Your task to perform on an android device: turn on javascript in the chrome app Image 0: 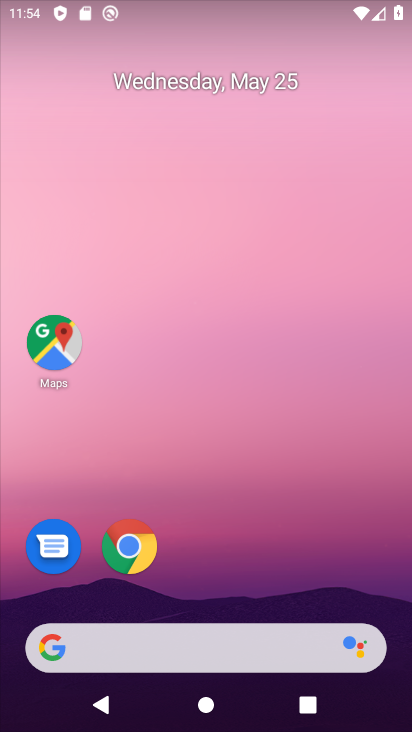
Step 0: click (131, 552)
Your task to perform on an android device: turn on javascript in the chrome app Image 1: 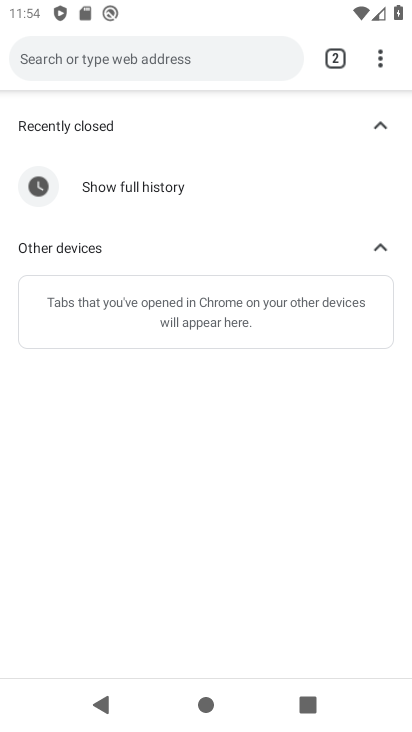
Step 1: click (390, 53)
Your task to perform on an android device: turn on javascript in the chrome app Image 2: 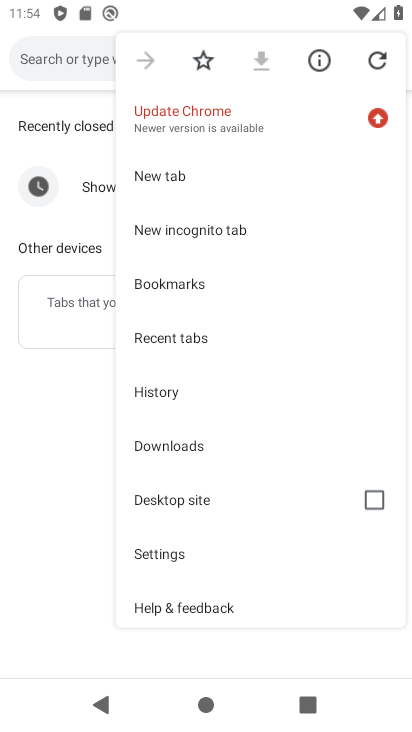
Step 2: click (188, 551)
Your task to perform on an android device: turn on javascript in the chrome app Image 3: 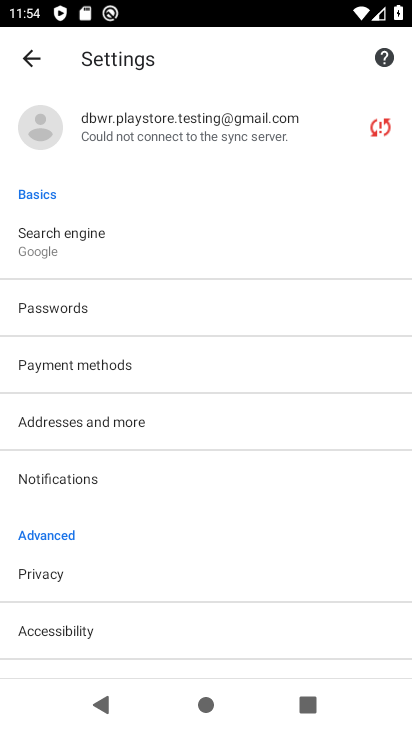
Step 3: drag from (155, 548) to (233, 111)
Your task to perform on an android device: turn on javascript in the chrome app Image 4: 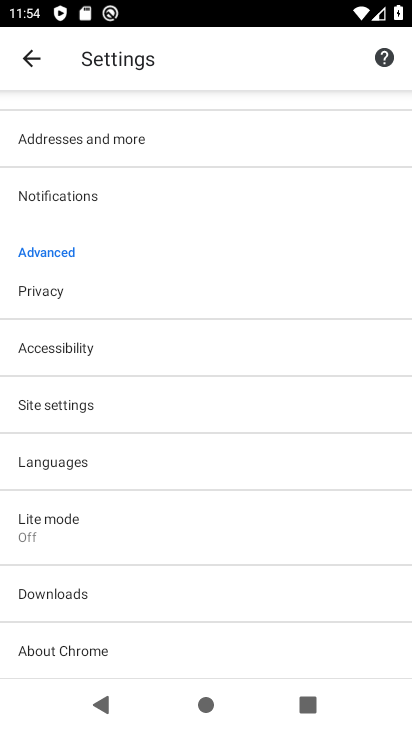
Step 4: drag from (106, 622) to (159, 203)
Your task to perform on an android device: turn on javascript in the chrome app Image 5: 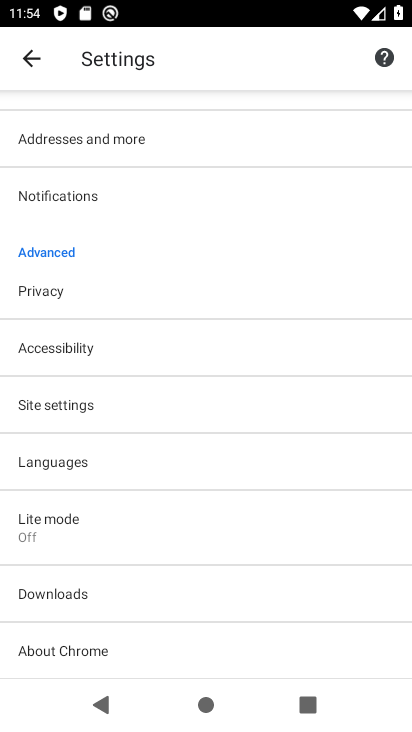
Step 5: click (65, 393)
Your task to perform on an android device: turn on javascript in the chrome app Image 6: 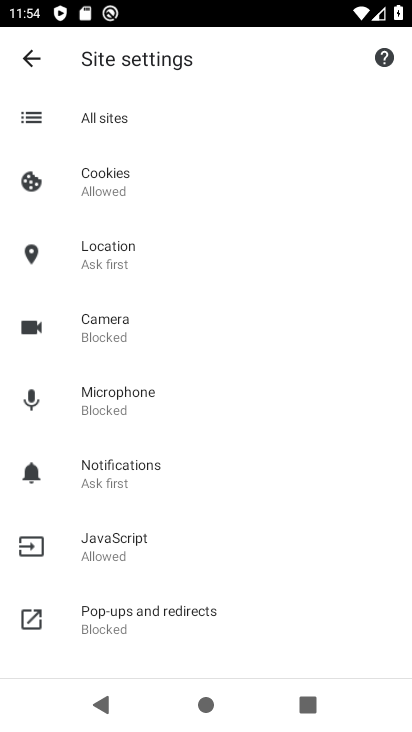
Step 6: click (166, 532)
Your task to perform on an android device: turn on javascript in the chrome app Image 7: 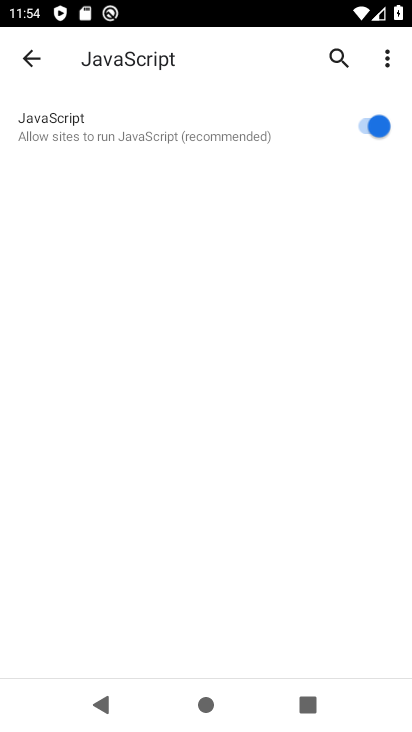
Step 7: task complete